Your task to perform on an android device: Search for "macbook pro" on bestbuy.com, select the first entry, and add it to the cart. Image 0: 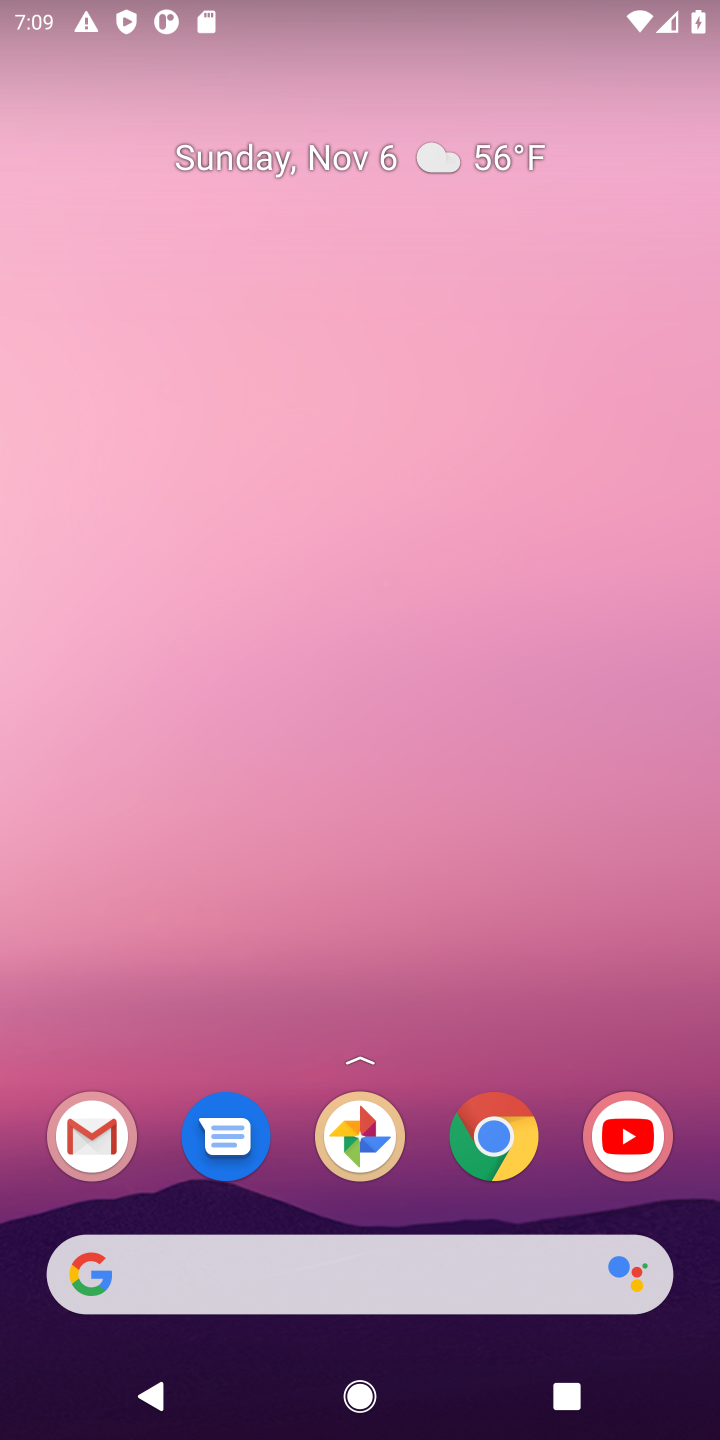
Step 0: click (256, 1265)
Your task to perform on an android device: Search for "macbook pro" on bestbuy.com, select the first entry, and add it to the cart. Image 1: 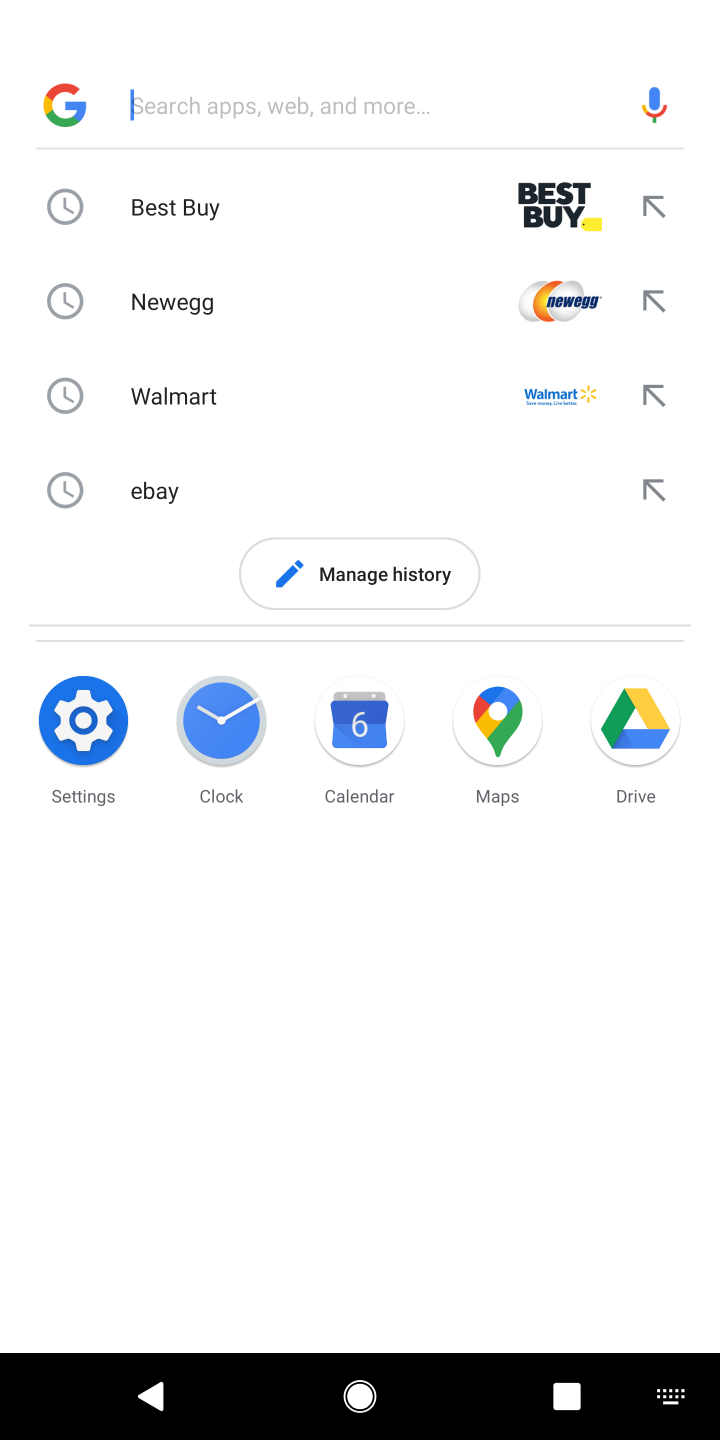
Step 1: click (173, 180)
Your task to perform on an android device: Search for "macbook pro" on bestbuy.com, select the first entry, and add it to the cart. Image 2: 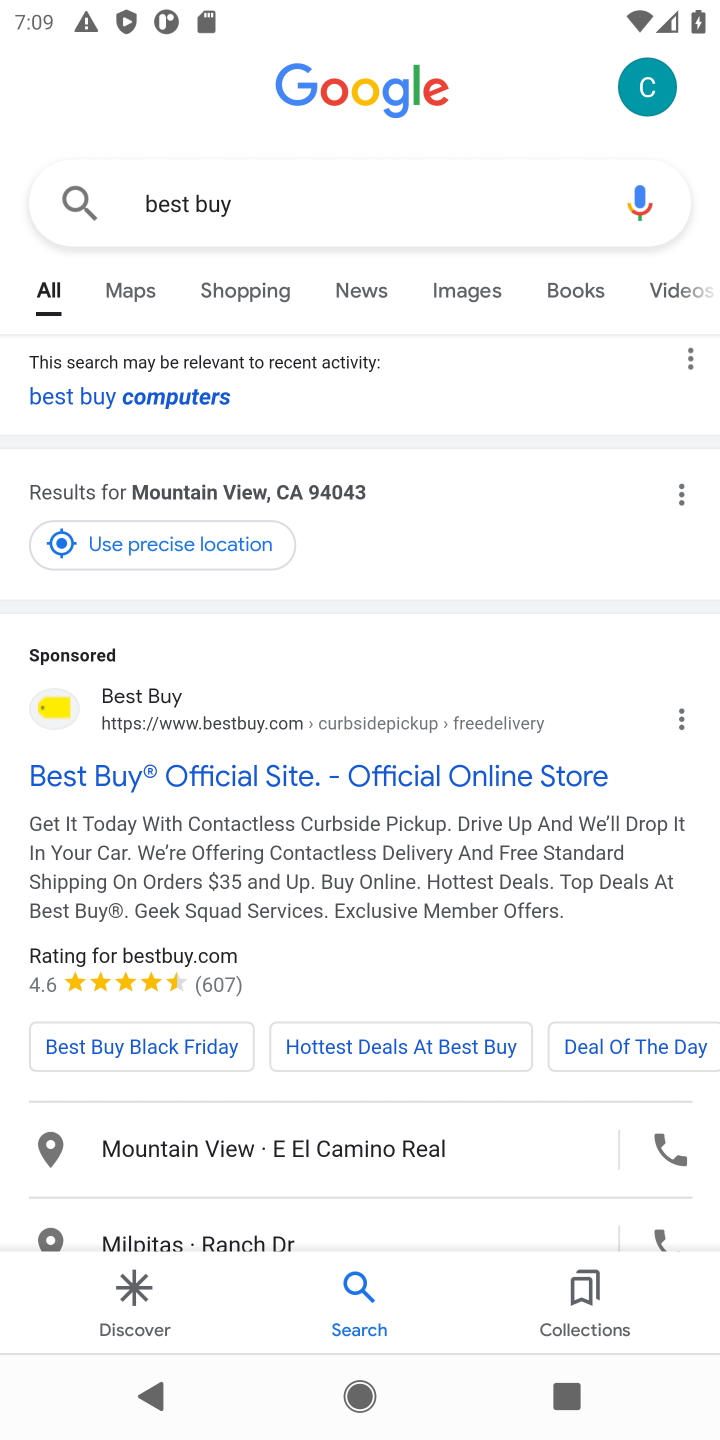
Step 2: click (200, 751)
Your task to perform on an android device: Search for "macbook pro" on bestbuy.com, select the first entry, and add it to the cart. Image 3: 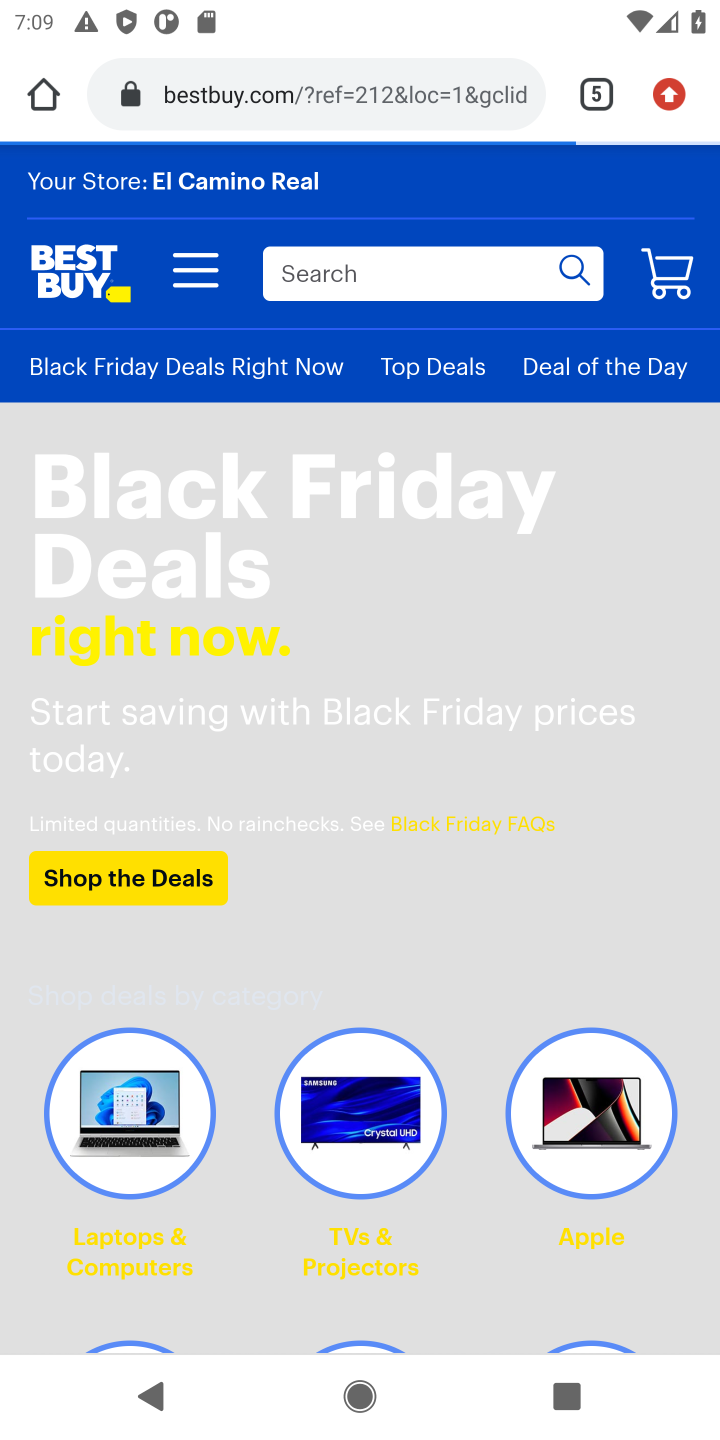
Step 3: click (408, 283)
Your task to perform on an android device: Search for "macbook pro" on bestbuy.com, select the first entry, and add it to the cart. Image 4: 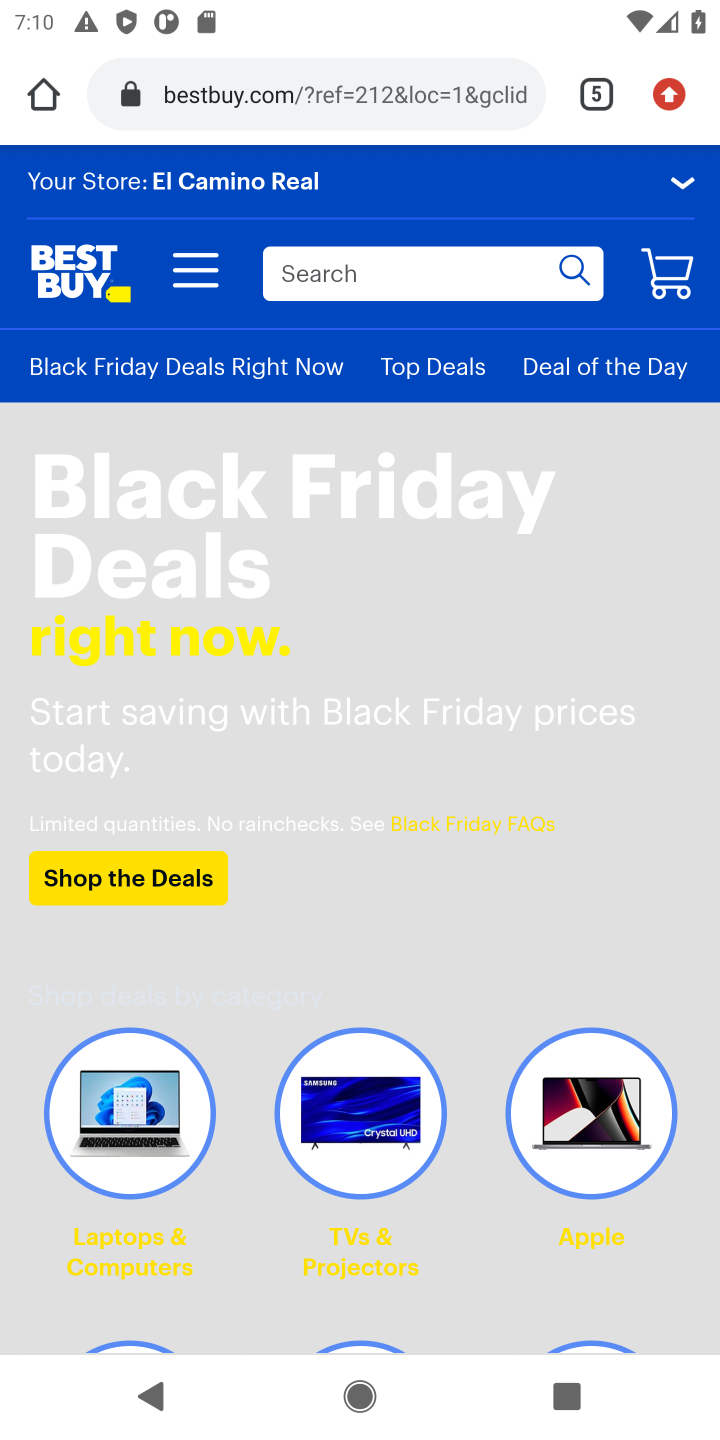
Step 4: type "macbook pro"
Your task to perform on an android device: Search for "macbook pro" on bestbuy.com, select the first entry, and add it to the cart. Image 5: 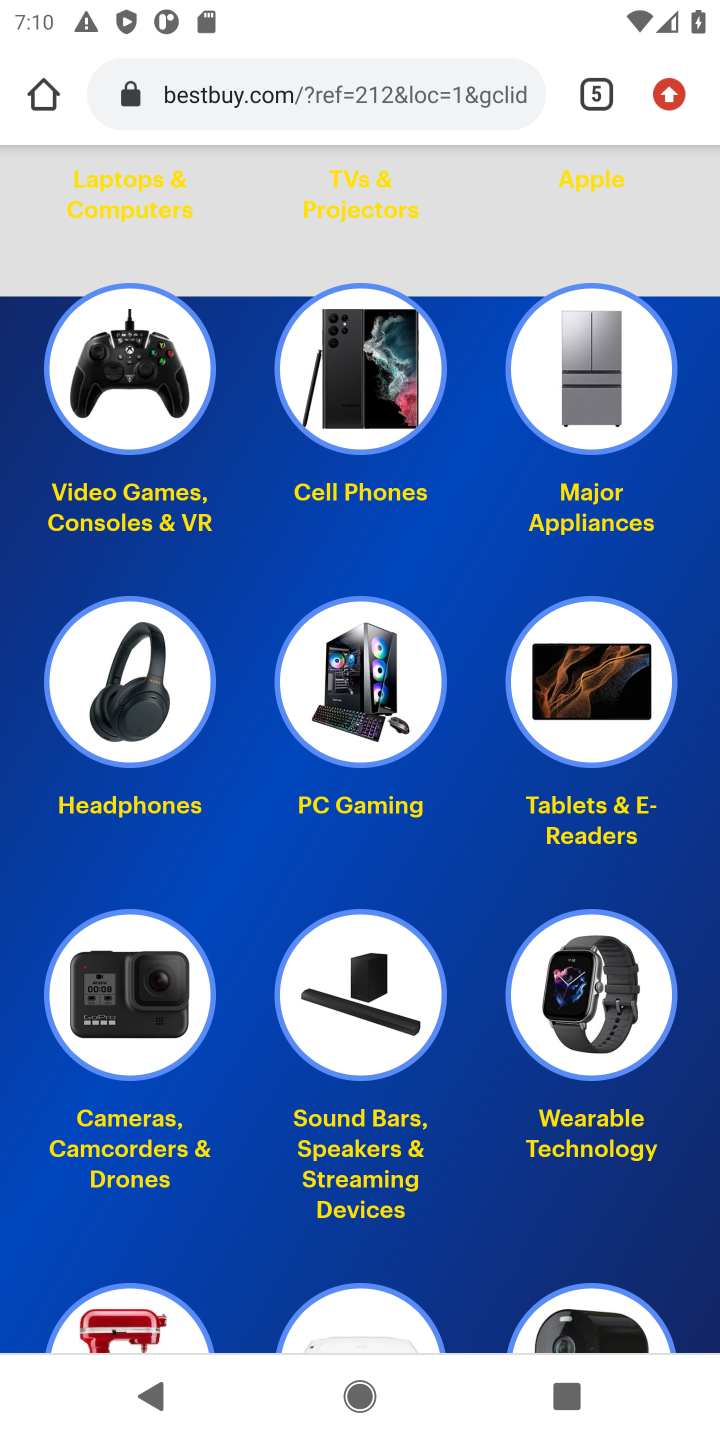
Step 5: task complete